Your task to perform on an android device: Open the map Image 0: 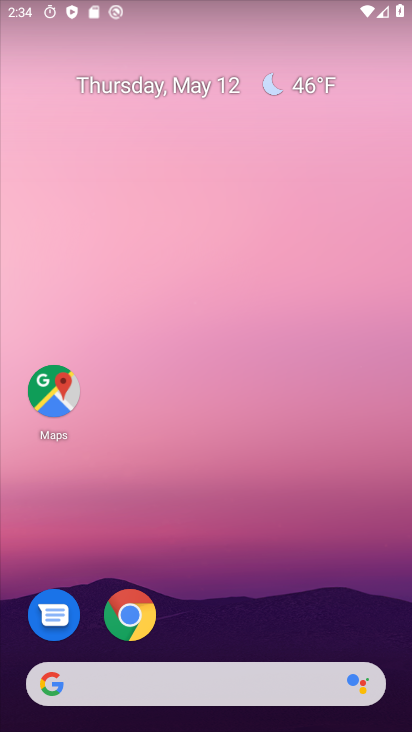
Step 0: click (52, 396)
Your task to perform on an android device: Open the map Image 1: 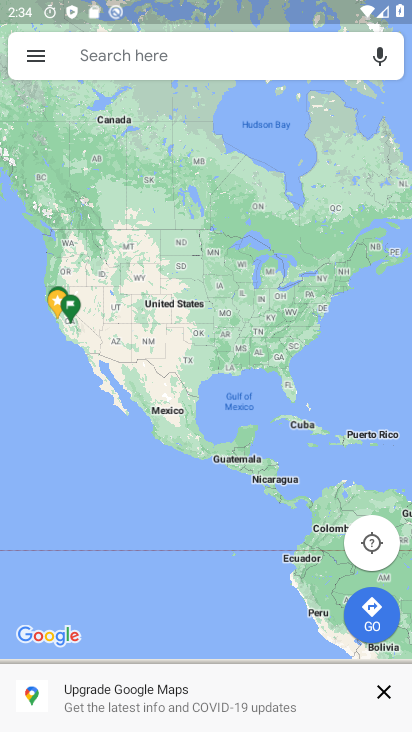
Step 1: task complete